Your task to perform on an android device: toggle data saver in the chrome app Image 0: 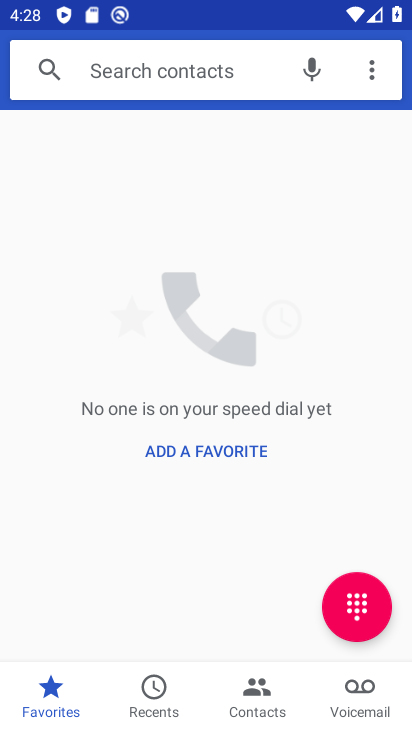
Step 0: drag from (332, 139) to (318, 19)
Your task to perform on an android device: toggle data saver in the chrome app Image 1: 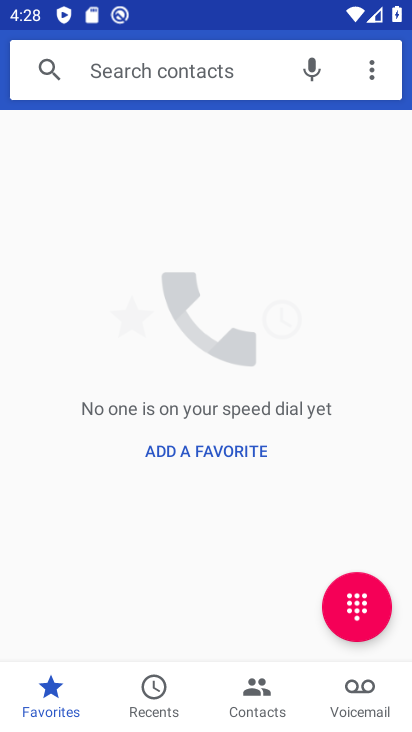
Step 1: click (366, 680)
Your task to perform on an android device: toggle data saver in the chrome app Image 2: 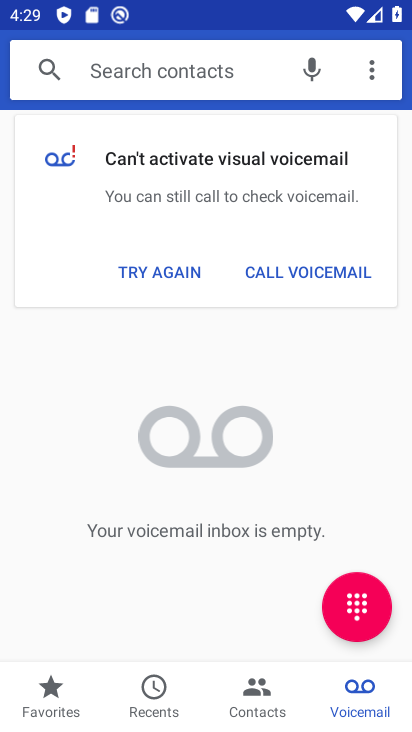
Step 2: press back button
Your task to perform on an android device: toggle data saver in the chrome app Image 3: 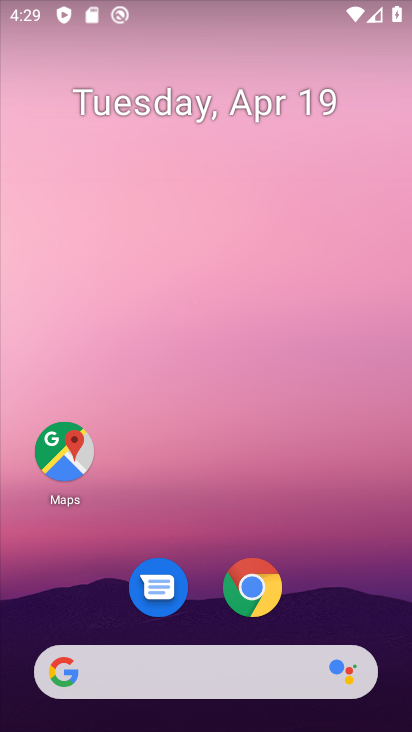
Step 3: drag from (308, 598) to (285, 38)
Your task to perform on an android device: toggle data saver in the chrome app Image 4: 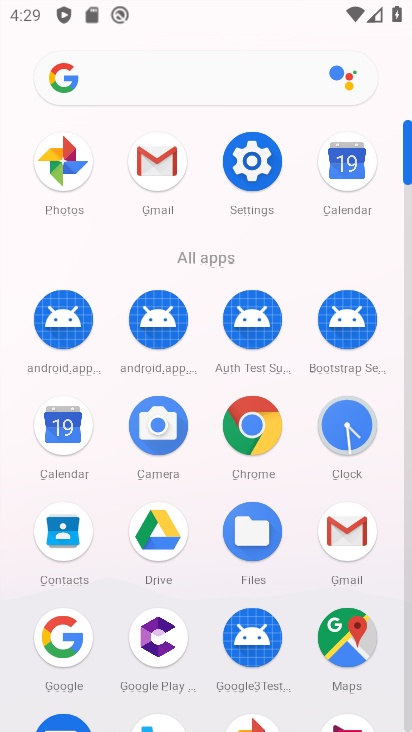
Step 4: drag from (24, 474) to (34, 182)
Your task to perform on an android device: toggle data saver in the chrome app Image 5: 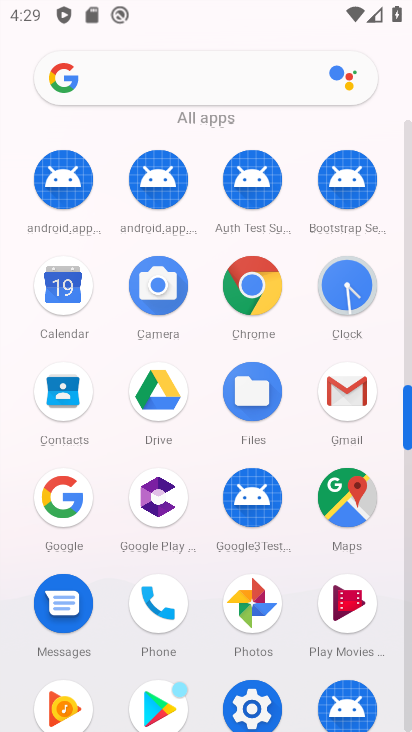
Step 5: drag from (17, 534) to (28, 231)
Your task to perform on an android device: toggle data saver in the chrome app Image 6: 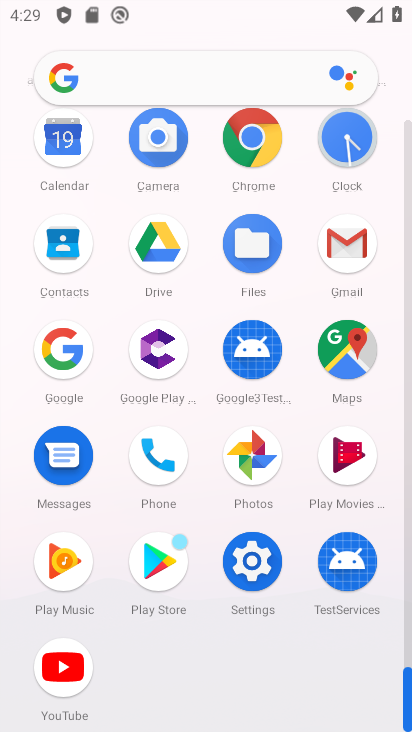
Step 6: click (247, 135)
Your task to perform on an android device: toggle data saver in the chrome app Image 7: 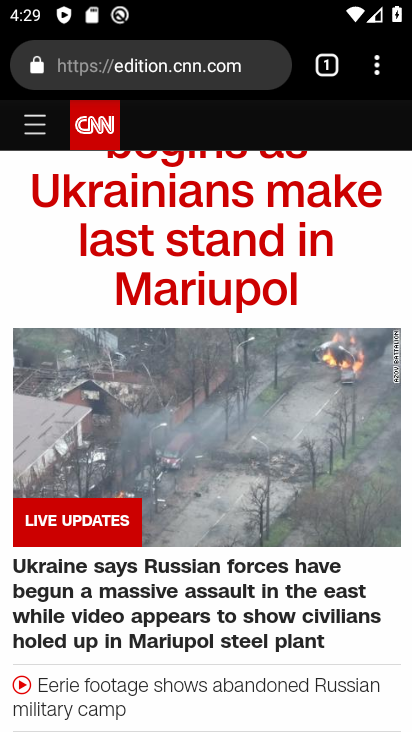
Step 7: drag from (374, 67) to (220, 637)
Your task to perform on an android device: toggle data saver in the chrome app Image 8: 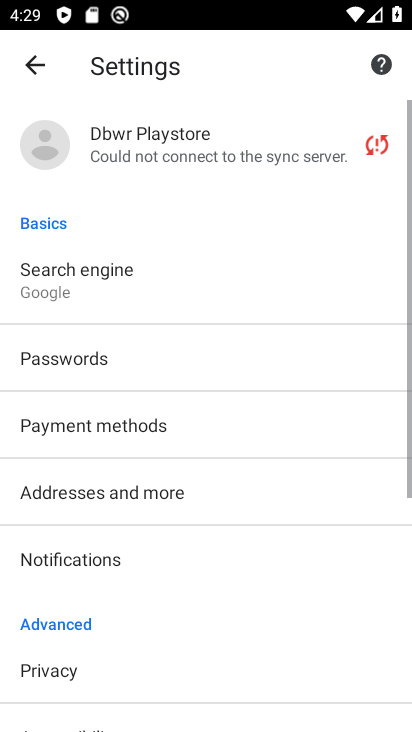
Step 8: drag from (220, 624) to (220, 203)
Your task to perform on an android device: toggle data saver in the chrome app Image 9: 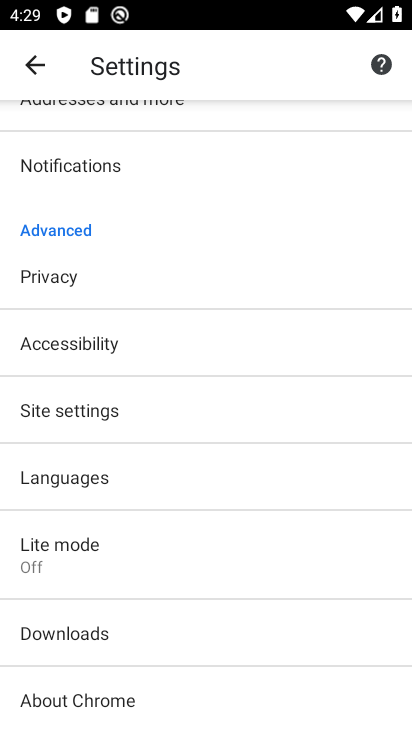
Step 9: click (144, 543)
Your task to perform on an android device: toggle data saver in the chrome app Image 10: 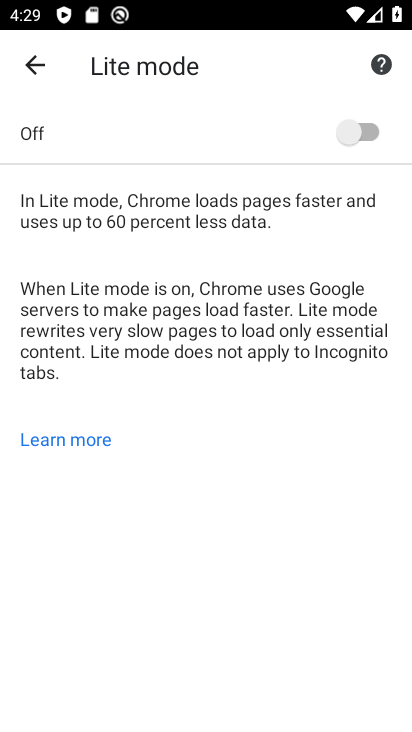
Step 10: click (356, 126)
Your task to perform on an android device: toggle data saver in the chrome app Image 11: 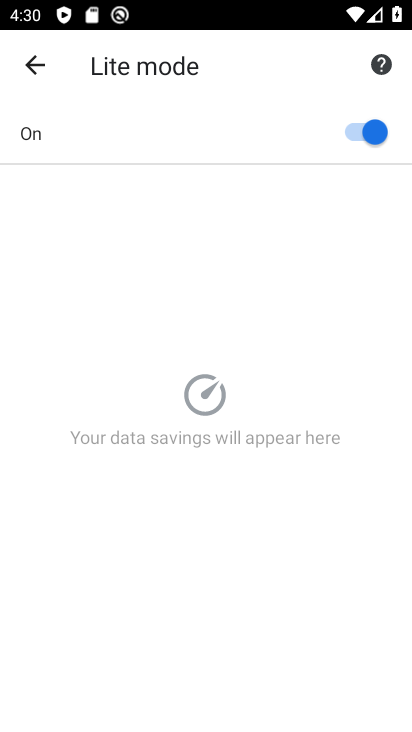
Step 11: task complete